Your task to perform on an android device: choose inbox layout in the gmail app Image 0: 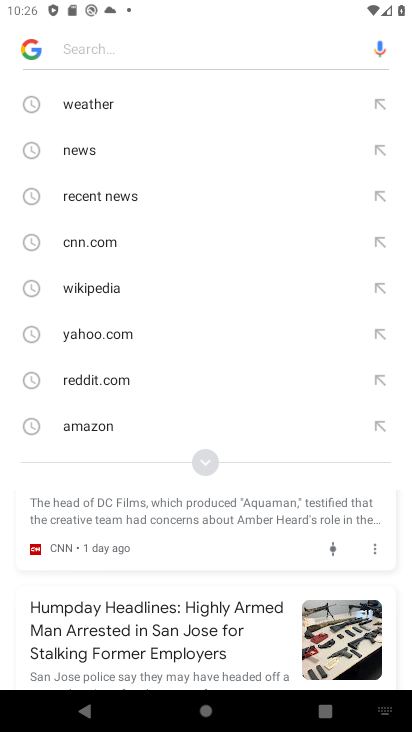
Step 0: press home button
Your task to perform on an android device: choose inbox layout in the gmail app Image 1: 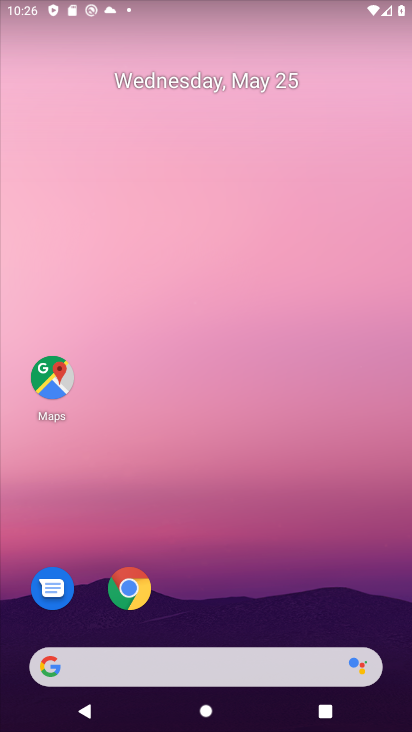
Step 1: drag from (256, 582) to (242, 178)
Your task to perform on an android device: choose inbox layout in the gmail app Image 2: 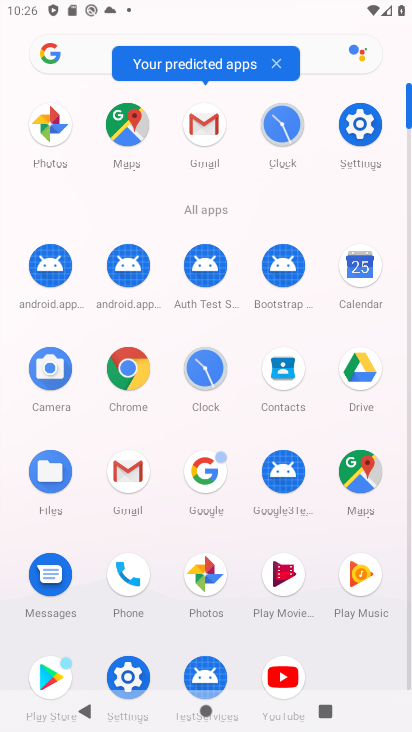
Step 2: click (203, 128)
Your task to perform on an android device: choose inbox layout in the gmail app Image 3: 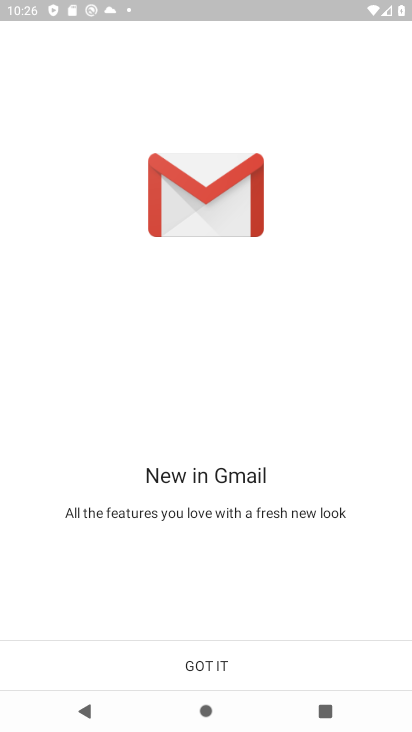
Step 3: click (217, 658)
Your task to perform on an android device: choose inbox layout in the gmail app Image 4: 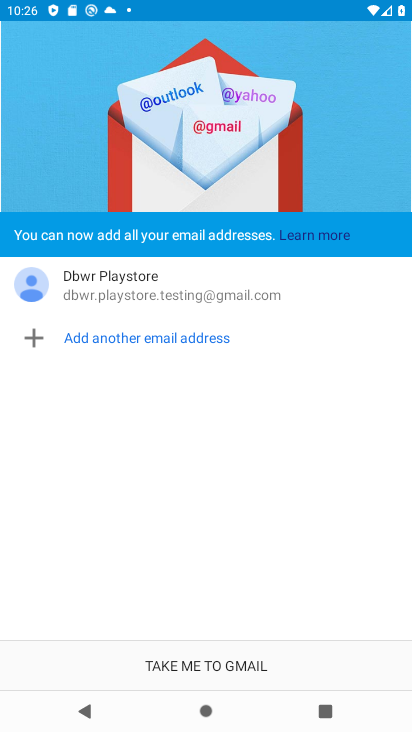
Step 4: click (203, 653)
Your task to perform on an android device: choose inbox layout in the gmail app Image 5: 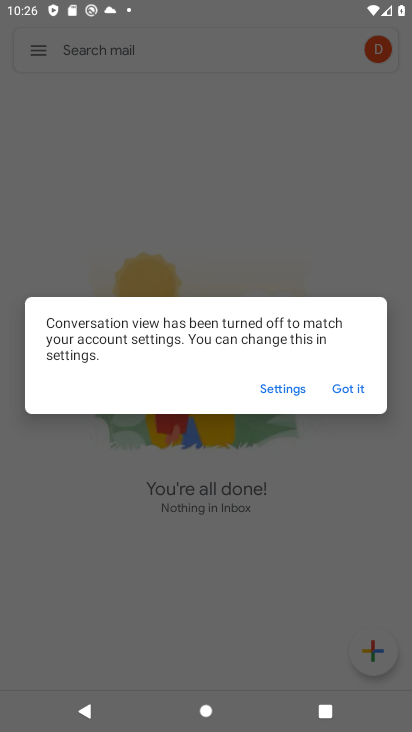
Step 5: click (343, 396)
Your task to perform on an android device: choose inbox layout in the gmail app Image 6: 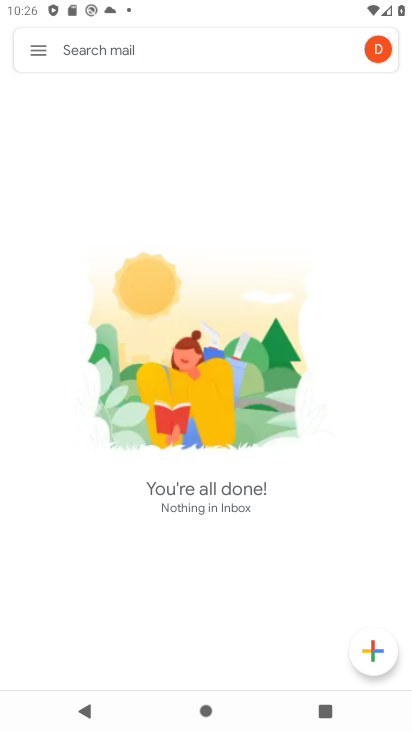
Step 6: click (30, 55)
Your task to perform on an android device: choose inbox layout in the gmail app Image 7: 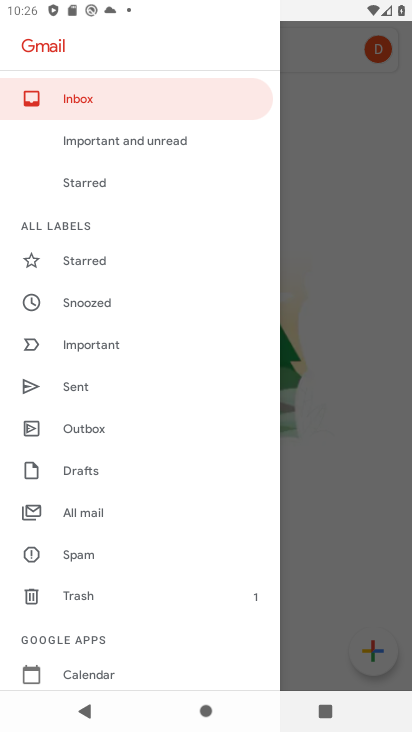
Step 7: drag from (84, 665) to (133, 274)
Your task to perform on an android device: choose inbox layout in the gmail app Image 8: 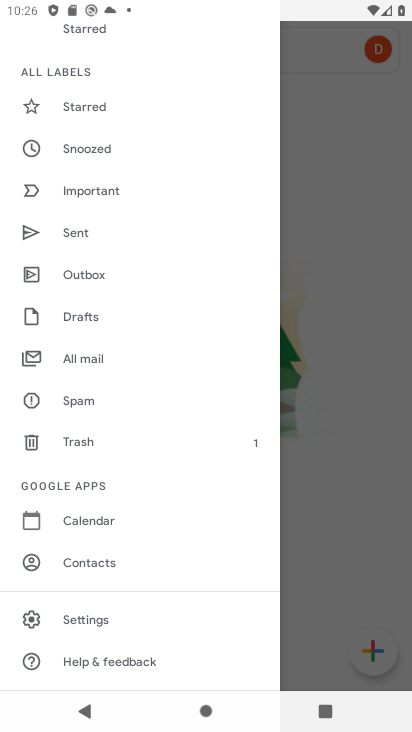
Step 8: click (71, 627)
Your task to perform on an android device: choose inbox layout in the gmail app Image 9: 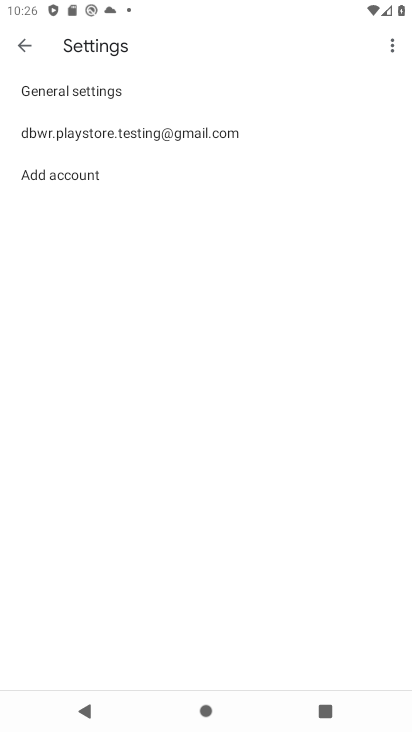
Step 9: click (165, 132)
Your task to perform on an android device: choose inbox layout in the gmail app Image 10: 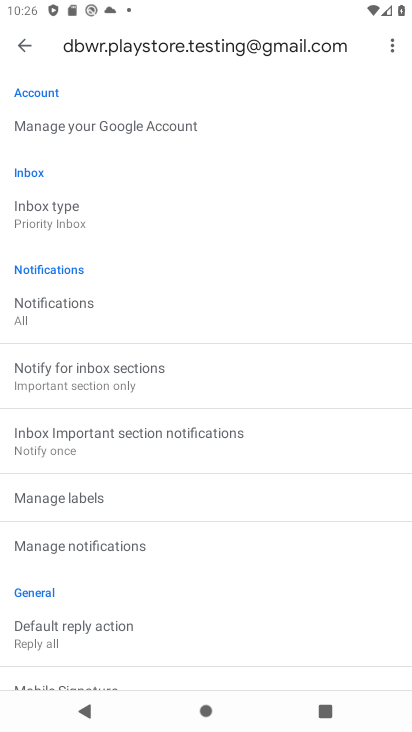
Step 10: drag from (133, 302) to (155, 199)
Your task to perform on an android device: choose inbox layout in the gmail app Image 11: 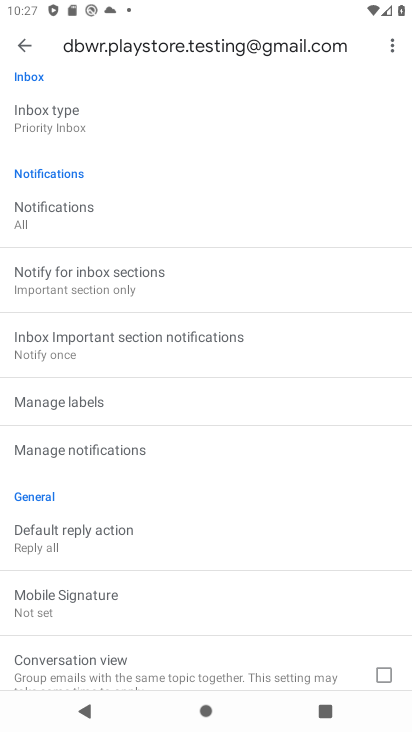
Step 11: click (130, 127)
Your task to perform on an android device: choose inbox layout in the gmail app Image 12: 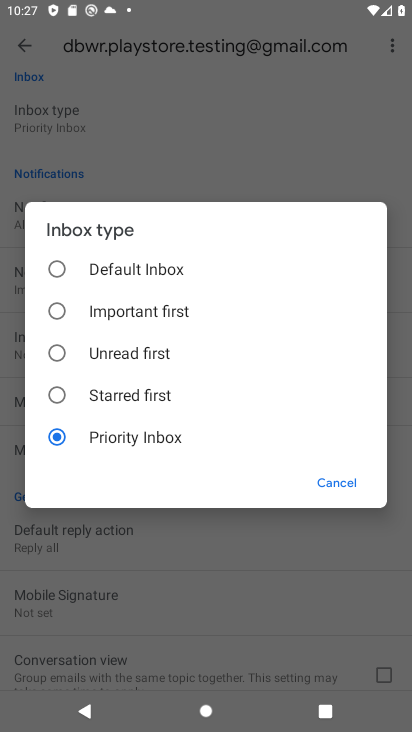
Step 12: click (158, 320)
Your task to perform on an android device: choose inbox layout in the gmail app Image 13: 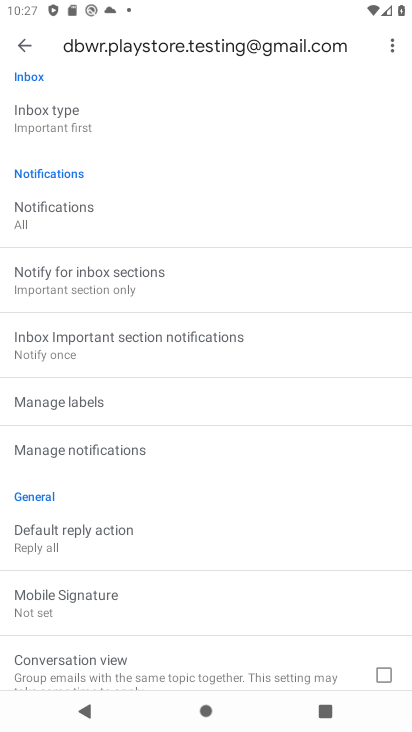
Step 13: task complete